Your task to perform on an android device: open device folders in google photos Image 0: 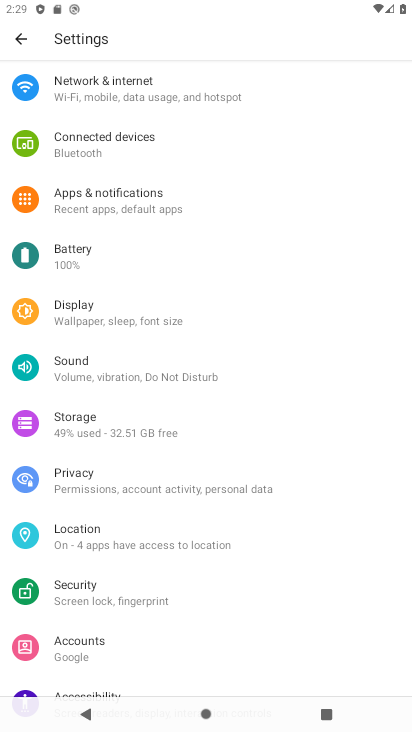
Step 0: press home button
Your task to perform on an android device: open device folders in google photos Image 1: 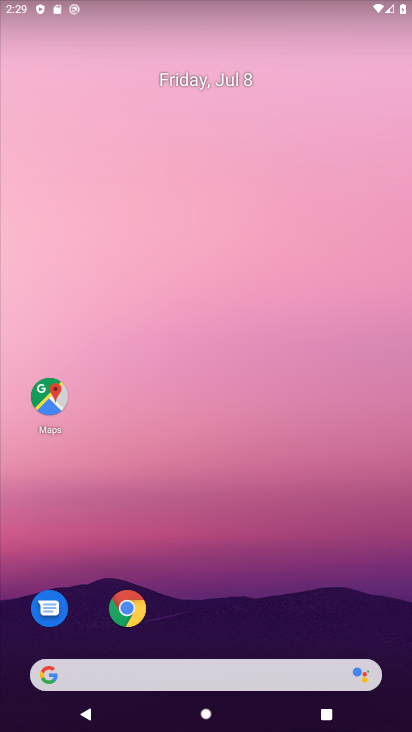
Step 1: drag from (235, 606) to (301, 92)
Your task to perform on an android device: open device folders in google photos Image 2: 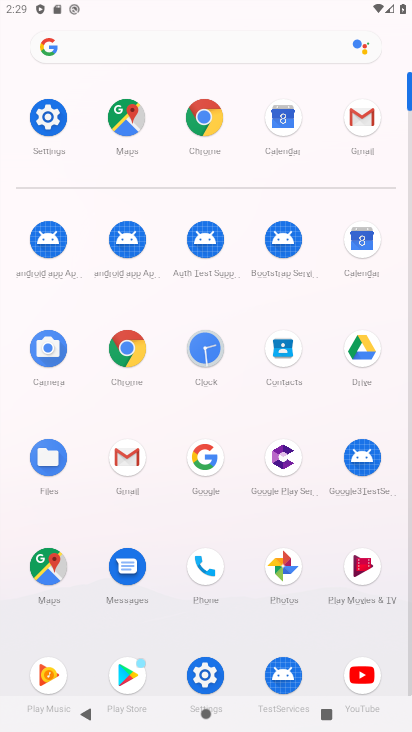
Step 2: click (294, 567)
Your task to perform on an android device: open device folders in google photos Image 3: 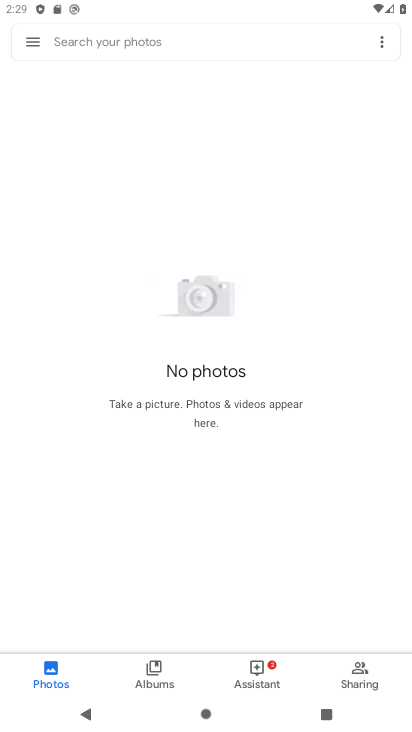
Step 3: click (34, 41)
Your task to perform on an android device: open device folders in google photos Image 4: 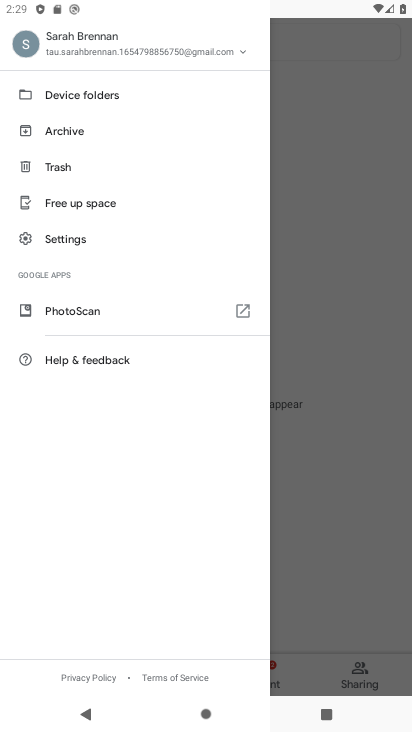
Step 4: click (68, 83)
Your task to perform on an android device: open device folders in google photos Image 5: 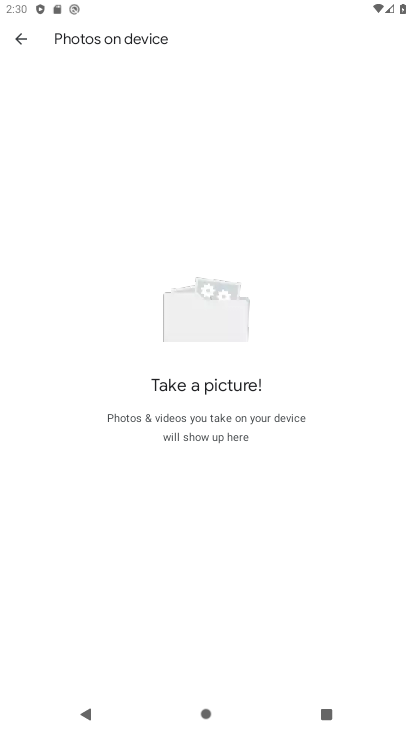
Step 5: task complete